Your task to perform on an android device: turn on the 24-hour format for clock Image 0: 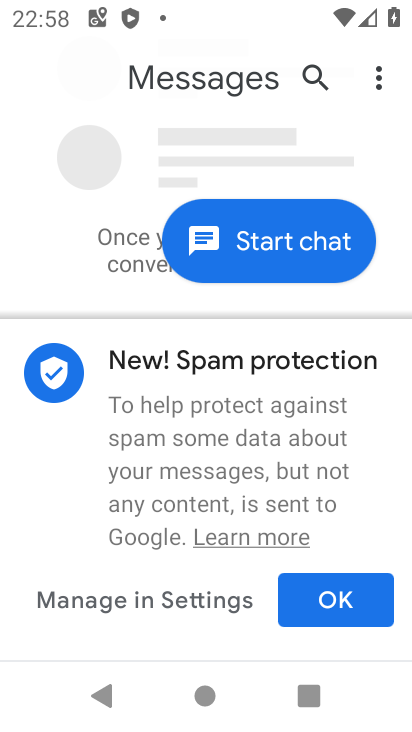
Step 0: press home button
Your task to perform on an android device: turn on the 24-hour format for clock Image 1: 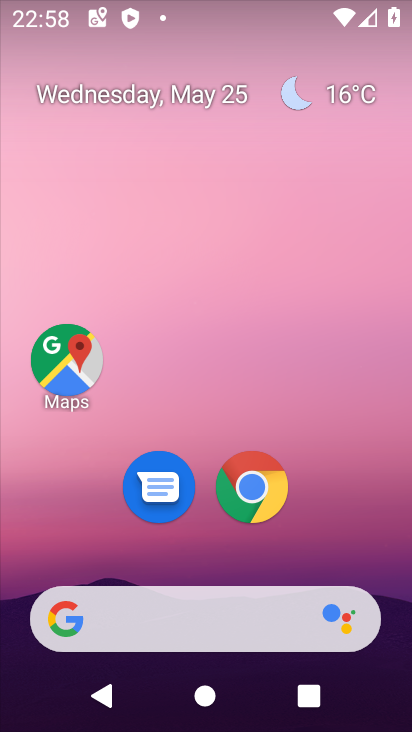
Step 1: drag from (258, 653) to (167, 30)
Your task to perform on an android device: turn on the 24-hour format for clock Image 2: 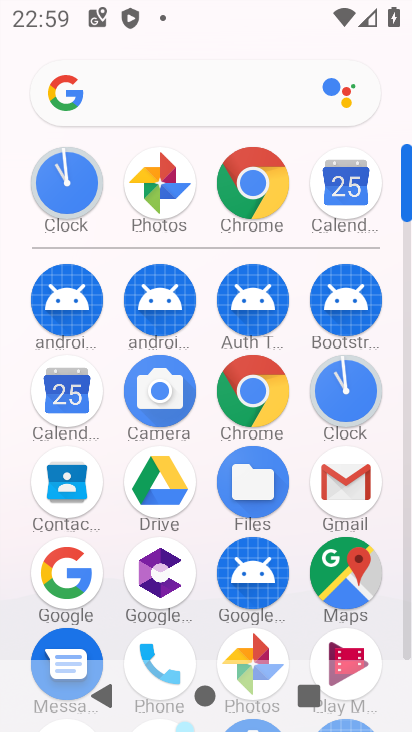
Step 2: click (76, 198)
Your task to perform on an android device: turn on the 24-hour format for clock Image 3: 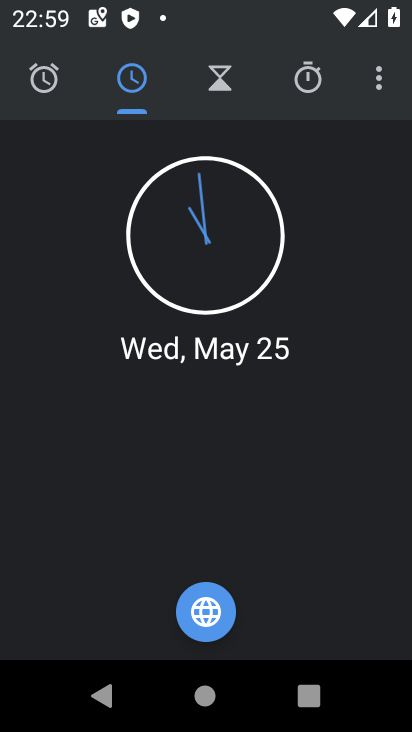
Step 3: click (389, 82)
Your task to perform on an android device: turn on the 24-hour format for clock Image 4: 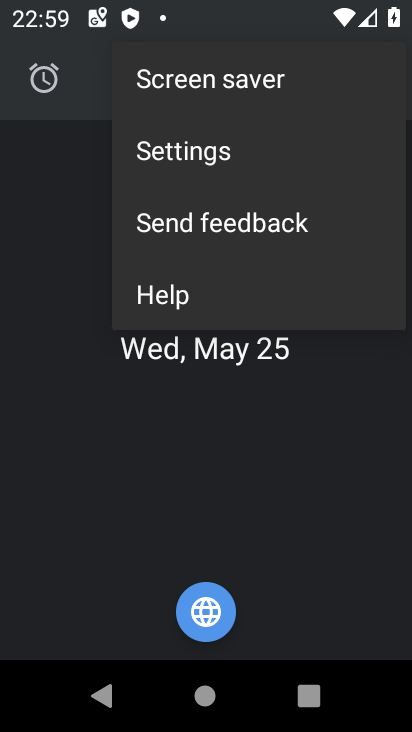
Step 4: click (273, 160)
Your task to perform on an android device: turn on the 24-hour format for clock Image 5: 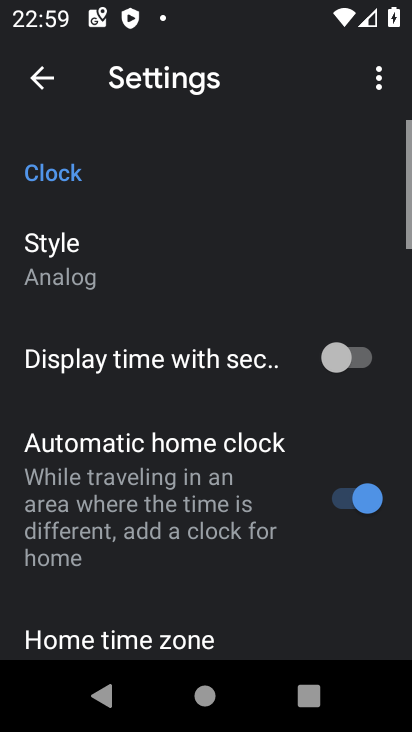
Step 5: drag from (231, 465) to (282, 13)
Your task to perform on an android device: turn on the 24-hour format for clock Image 6: 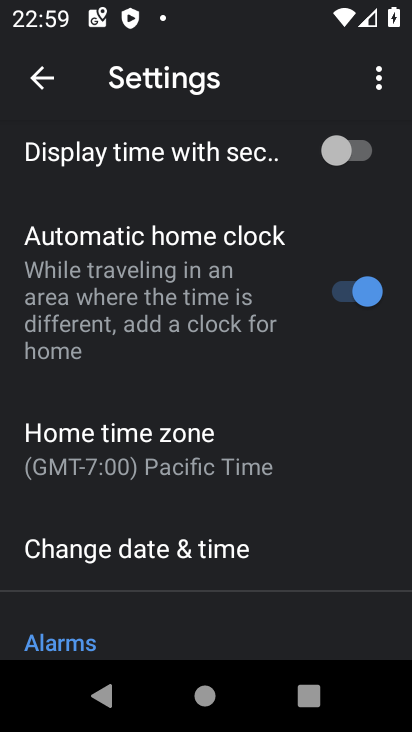
Step 6: click (162, 547)
Your task to perform on an android device: turn on the 24-hour format for clock Image 7: 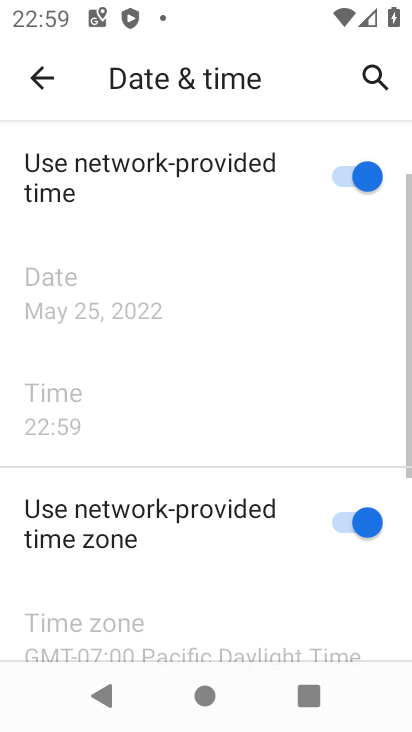
Step 7: task complete